Your task to perform on an android device: empty trash in google photos Image 0: 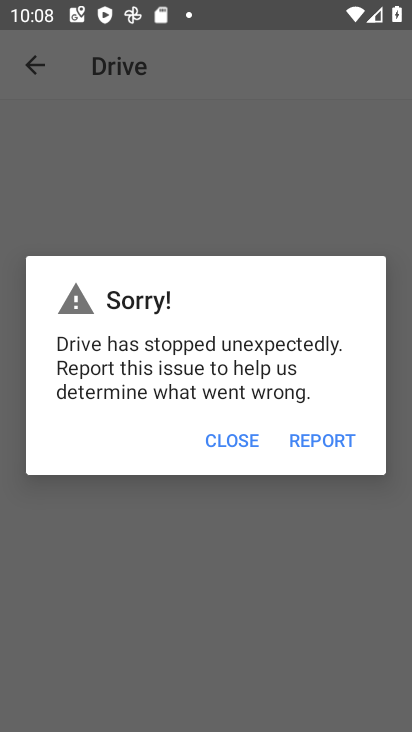
Step 0: press home button
Your task to perform on an android device: empty trash in google photos Image 1: 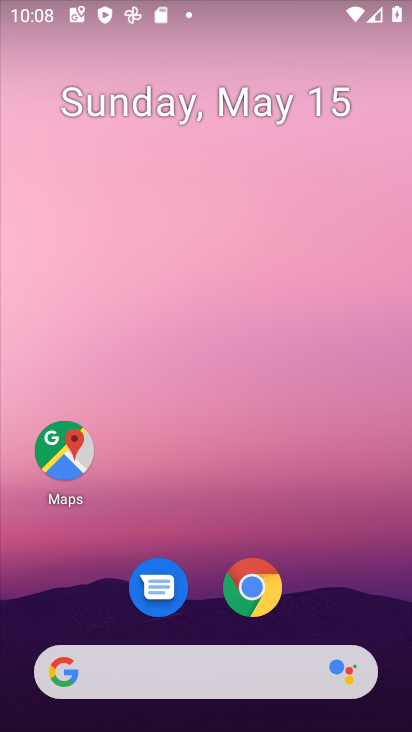
Step 1: drag from (400, 634) to (275, 233)
Your task to perform on an android device: empty trash in google photos Image 2: 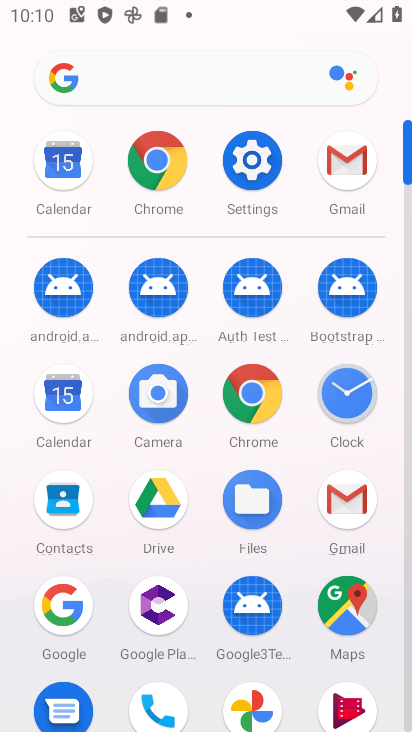
Step 2: click (260, 687)
Your task to perform on an android device: empty trash in google photos Image 3: 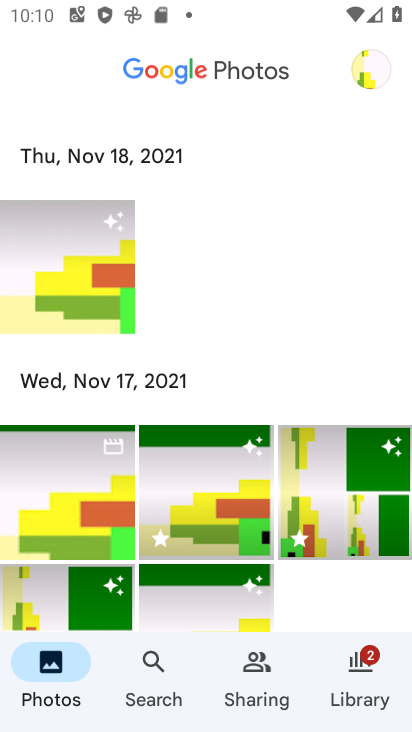
Step 3: click (334, 672)
Your task to perform on an android device: empty trash in google photos Image 4: 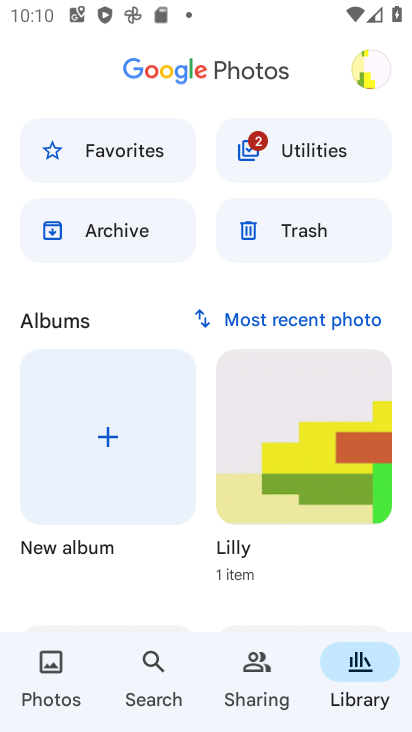
Step 4: click (291, 244)
Your task to perform on an android device: empty trash in google photos Image 5: 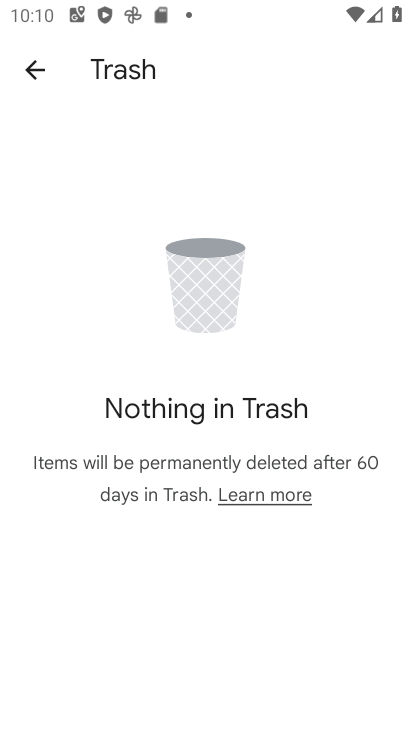
Step 5: task complete